Your task to perform on an android device: toggle javascript in the chrome app Image 0: 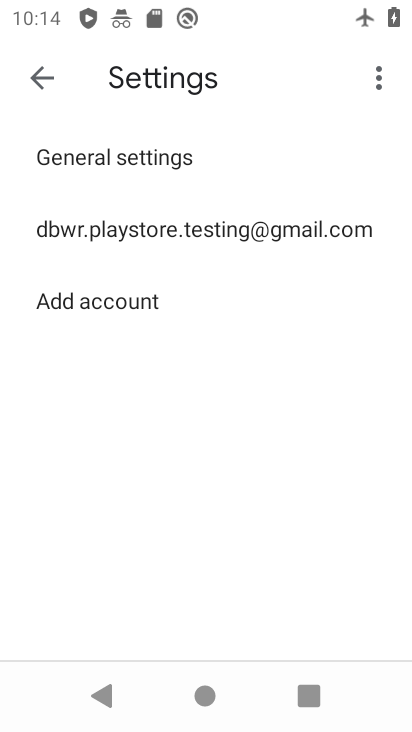
Step 0: press home button
Your task to perform on an android device: toggle javascript in the chrome app Image 1: 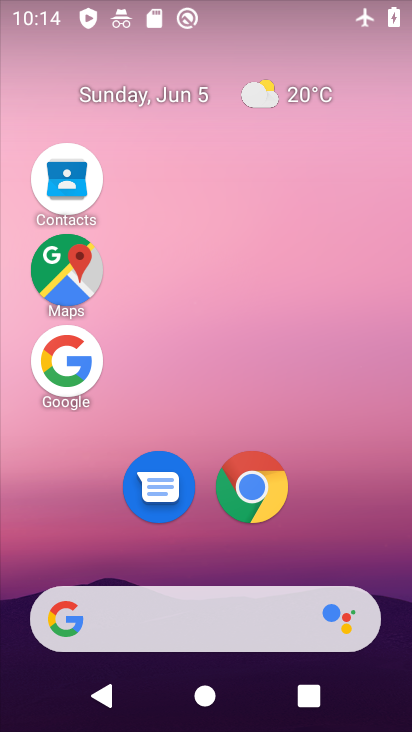
Step 1: click (260, 494)
Your task to perform on an android device: toggle javascript in the chrome app Image 2: 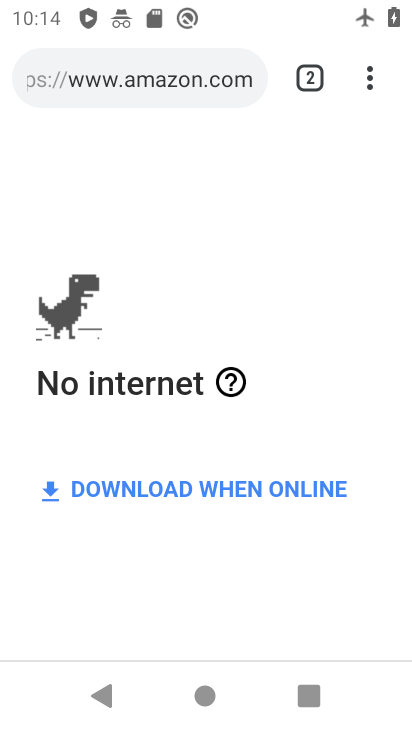
Step 2: click (375, 77)
Your task to perform on an android device: toggle javascript in the chrome app Image 3: 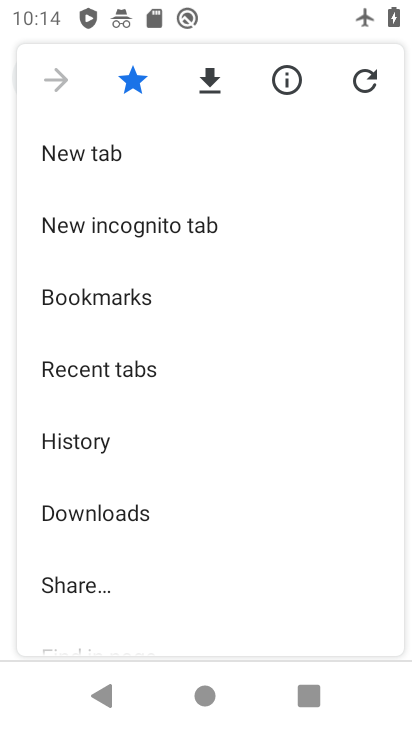
Step 3: drag from (162, 505) to (237, 125)
Your task to perform on an android device: toggle javascript in the chrome app Image 4: 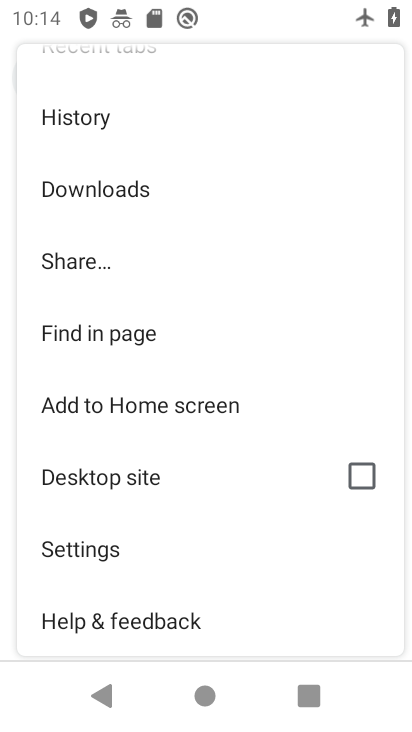
Step 4: click (109, 555)
Your task to perform on an android device: toggle javascript in the chrome app Image 5: 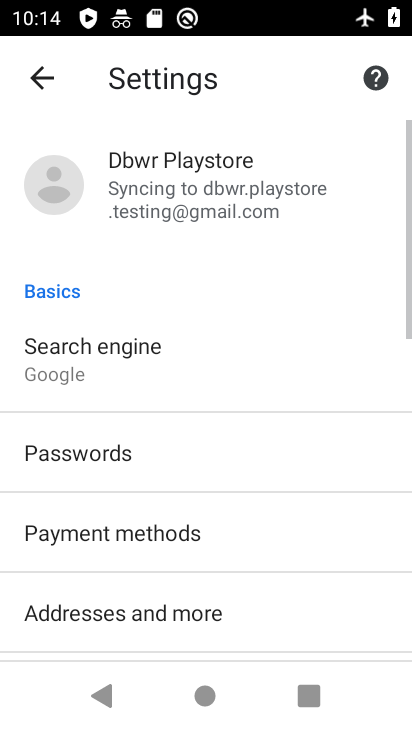
Step 5: drag from (151, 555) to (211, 210)
Your task to perform on an android device: toggle javascript in the chrome app Image 6: 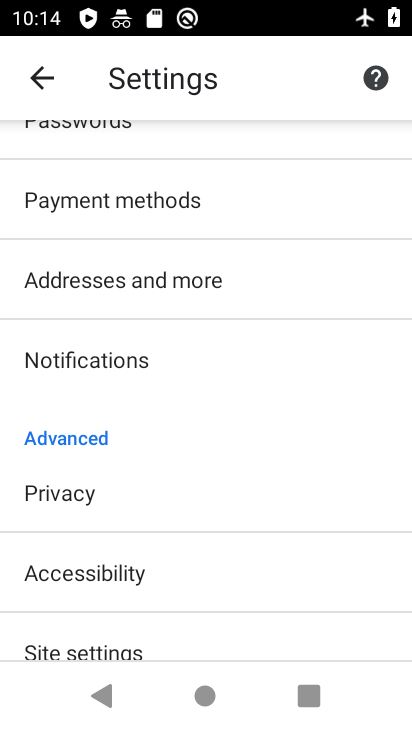
Step 6: drag from (149, 547) to (194, 250)
Your task to perform on an android device: toggle javascript in the chrome app Image 7: 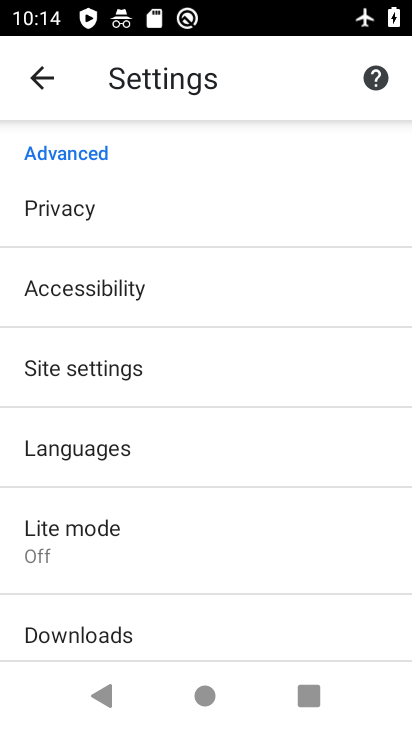
Step 7: drag from (119, 556) to (129, 247)
Your task to perform on an android device: toggle javascript in the chrome app Image 8: 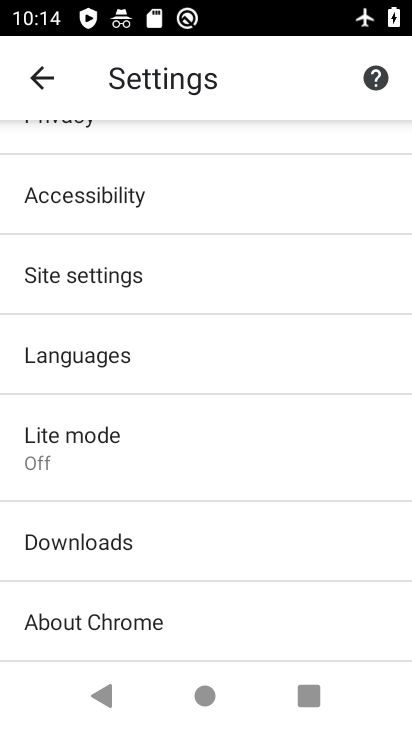
Step 8: click (118, 276)
Your task to perform on an android device: toggle javascript in the chrome app Image 9: 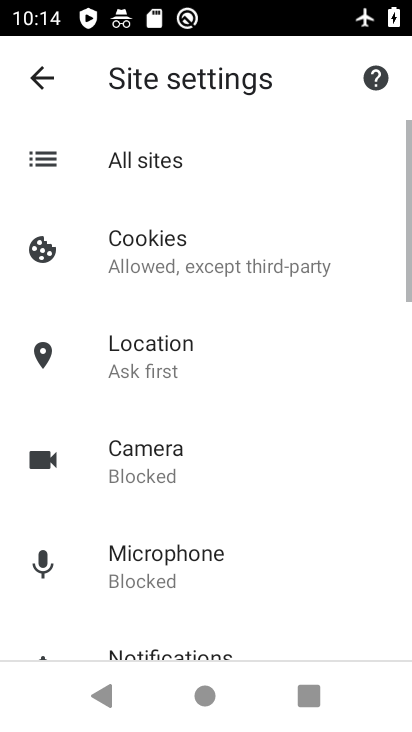
Step 9: drag from (219, 528) to (281, 124)
Your task to perform on an android device: toggle javascript in the chrome app Image 10: 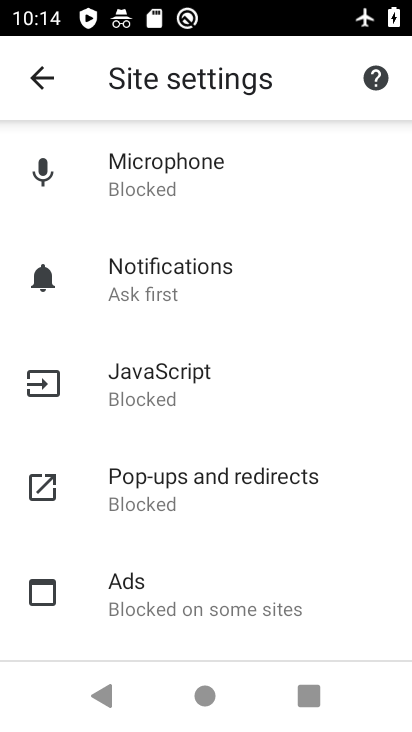
Step 10: click (168, 398)
Your task to perform on an android device: toggle javascript in the chrome app Image 11: 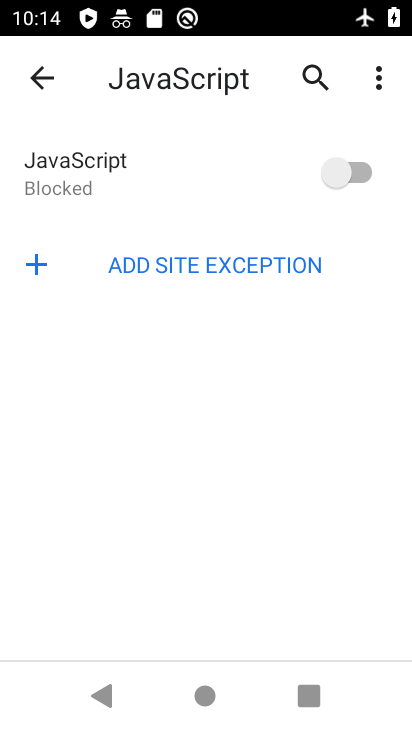
Step 11: click (350, 173)
Your task to perform on an android device: toggle javascript in the chrome app Image 12: 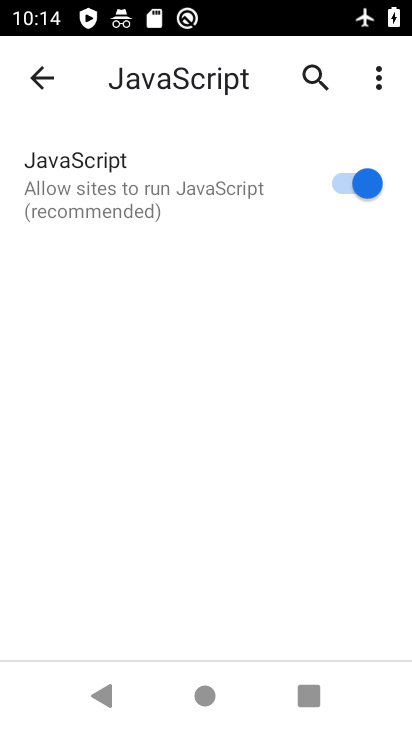
Step 12: task complete